Your task to perform on an android device: make emails show in primary in the gmail app Image 0: 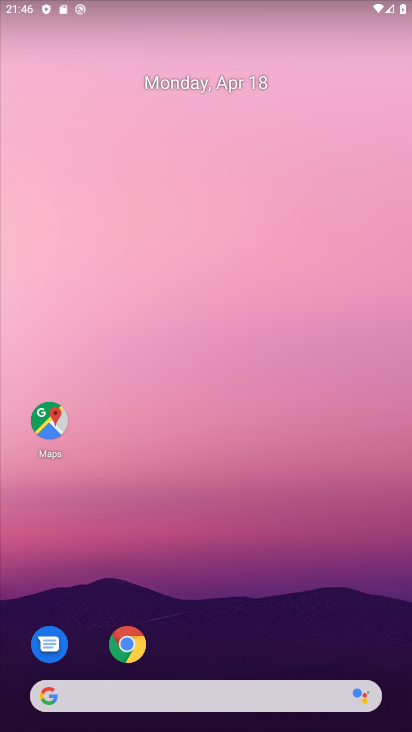
Step 0: drag from (215, 659) to (305, 81)
Your task to perform on an android device: make emails show in primary in the gmail app Image 1: 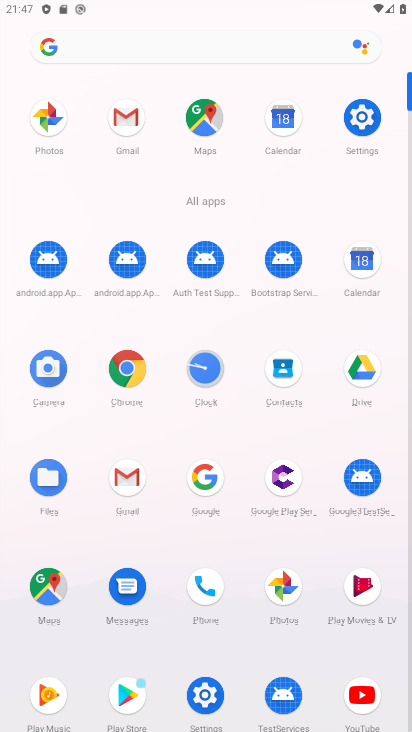
Step 1: click (122, 479)
Your task to perform on an android device: make emails show in primary in the gmail app Image 2: 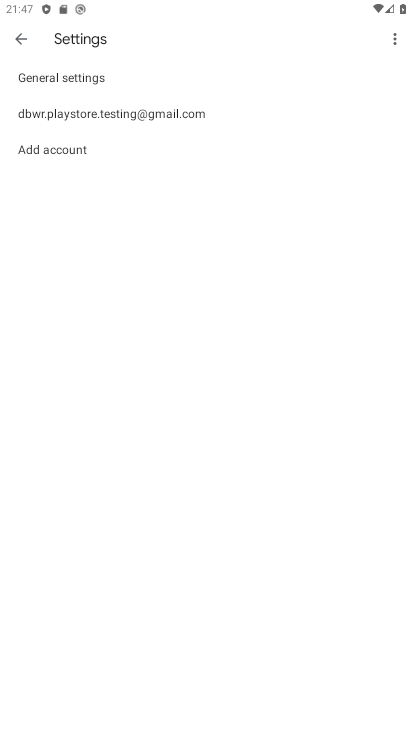
Step 2: click (139, 115)
Your task to perform on an android device: make emails show in primary in the gmail app Image 3: 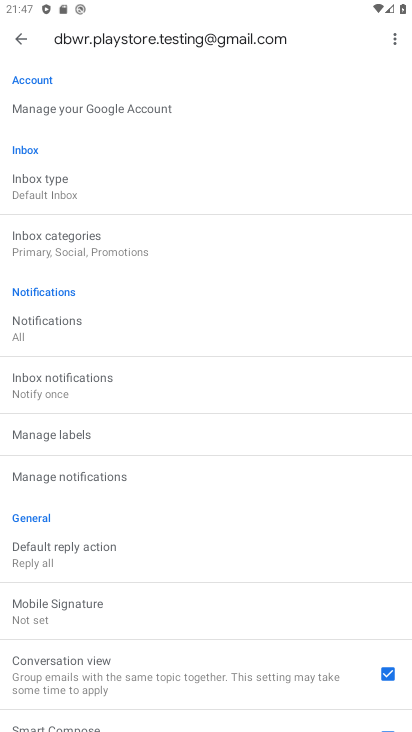
Step 3: click (112, 247)
Your task to perform on an android device: make emails show in primary in the gmail app Image 4: 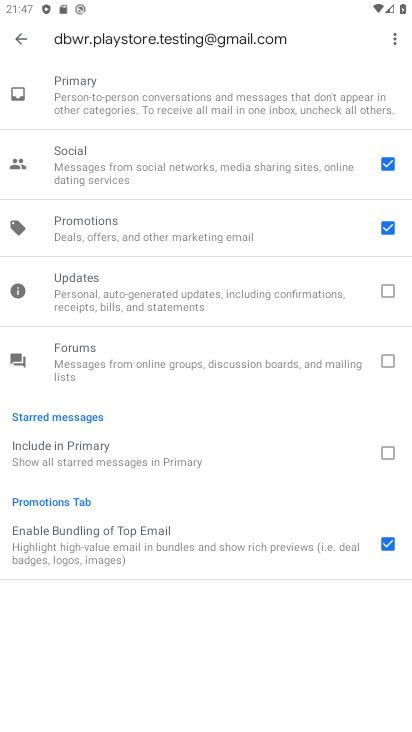
Step 4: click (385, 156)
Your task to perform on an android device: make emails show in primary in the gmail app Image 5: 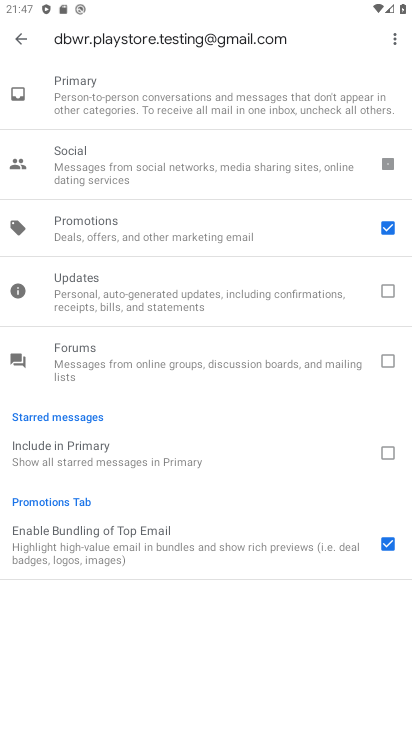
Step 5: click (385, 227)
Your task to perform on an android device: make emails show in primary in the gmail app Image 6: 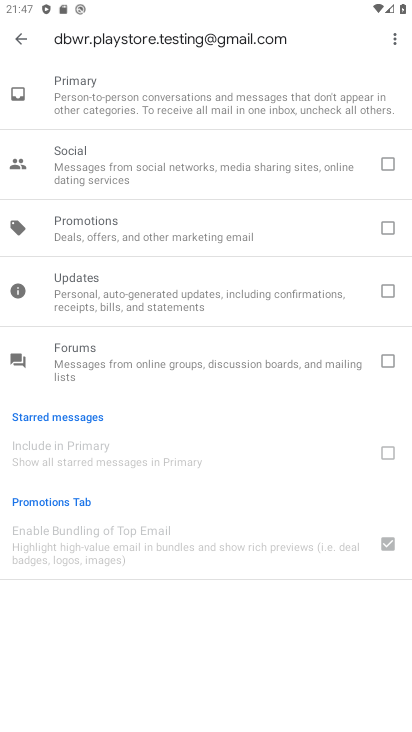
Step 6: task complete